Your task to perform on an android device: turn on airplane mode Image 0: 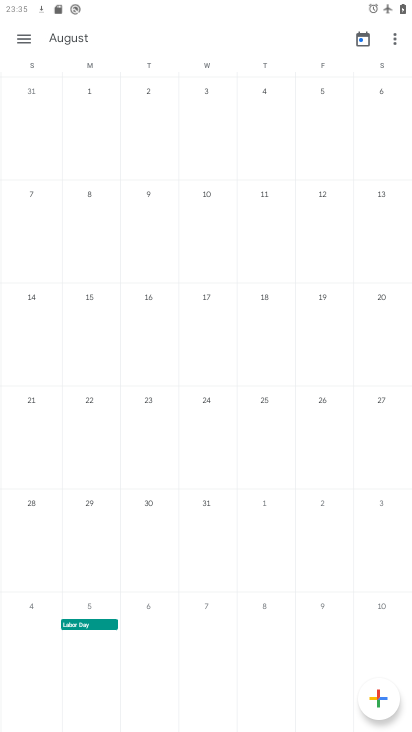
Step 0: press home button
Your task to perform on an android device: turn on airplane mode Image 1: 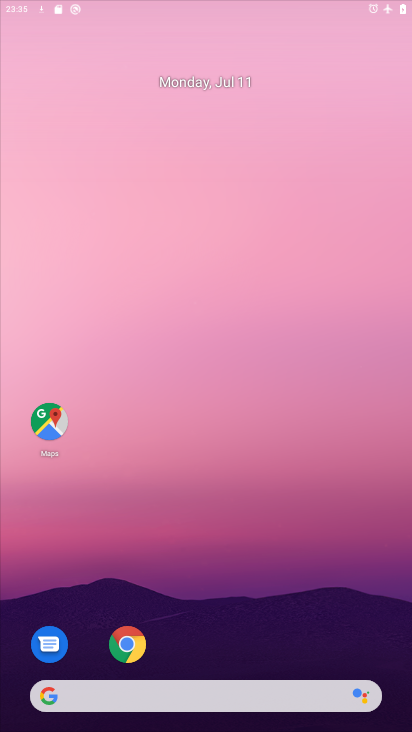
Step 1: drag from (269, 614) to (217, 53)
Your task to perform on an android device: turn on airplane mode Image 2: 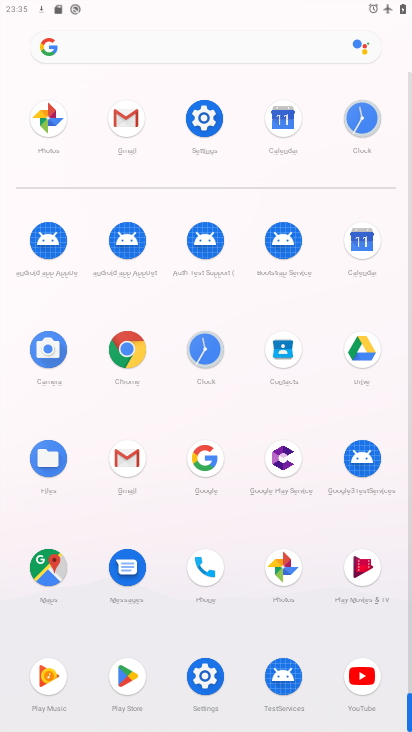
Step 2: click (207, 669)
Your task to perform on an android device: turn on airplane mode Image 3: 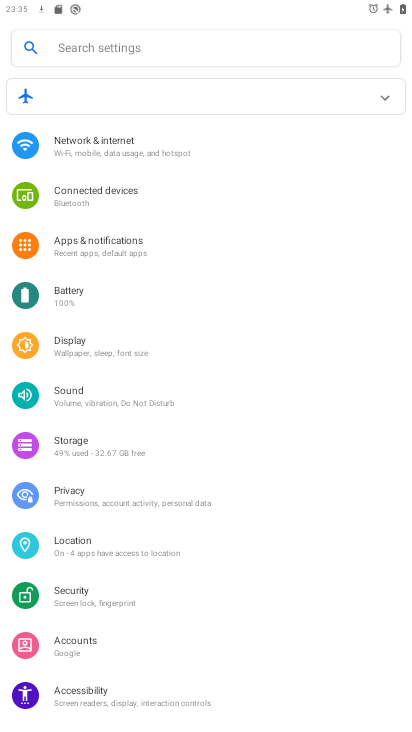
Step 3: click (133, 141)
Your task to perform on an android device: turn on airplane mode Image 4: 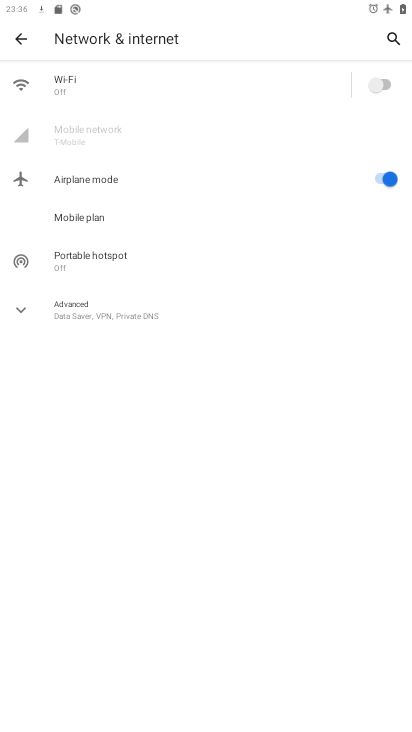
Step 4: task complete